Your task to perform on an android device: set an alarm Image 0: 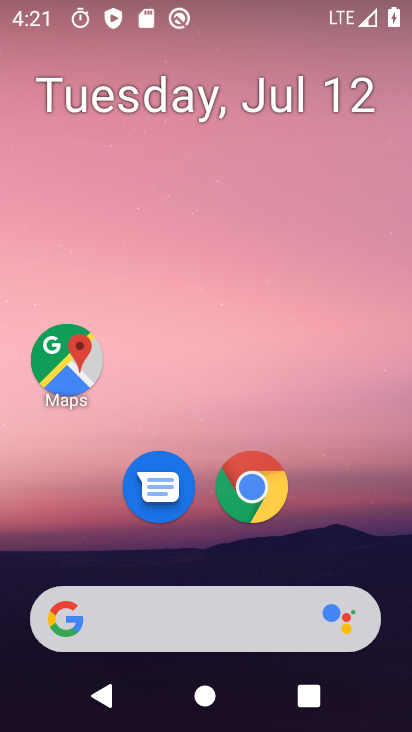
Step 0: drag from (203, 581) to (207, 163)
Your task to perform on an android device: set an alarm Image 1: 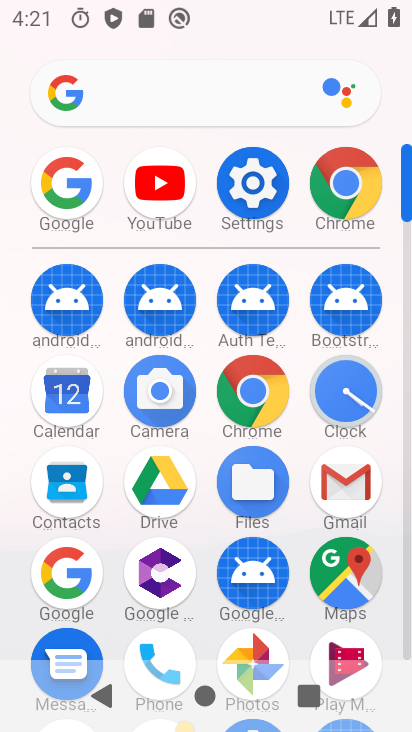
Step 1: click (346, 400)
Your task to perform on an android device: set an alarm Image 2: 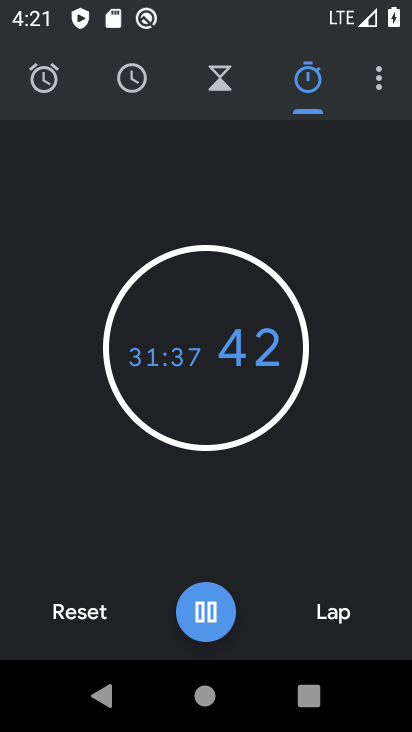
Step 2: click (45, 87)
Your task to perform on an android device: set an alarm Image 3: 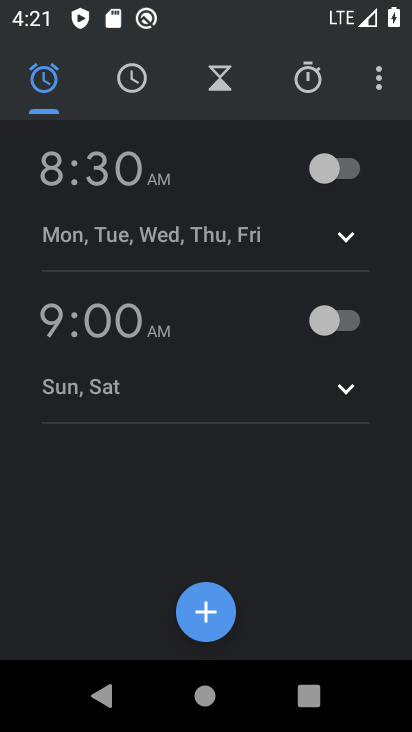
Step 3: click (215, 616)
Your task to perform on an android device: set an alarm Image 4: 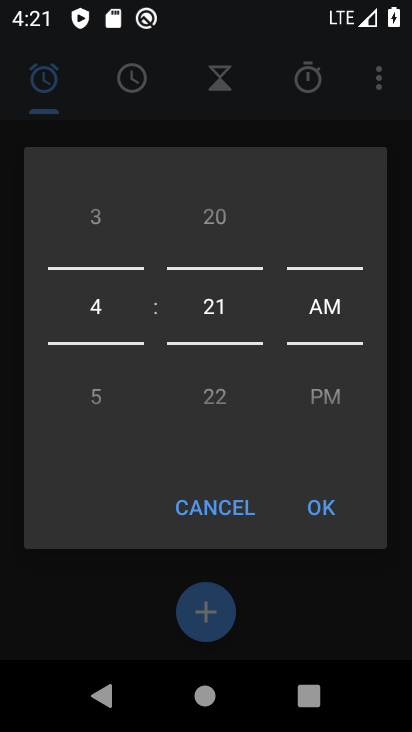
Step 4: click (329, 507)
Your task to perform on an android device: set an alarm Image 5: 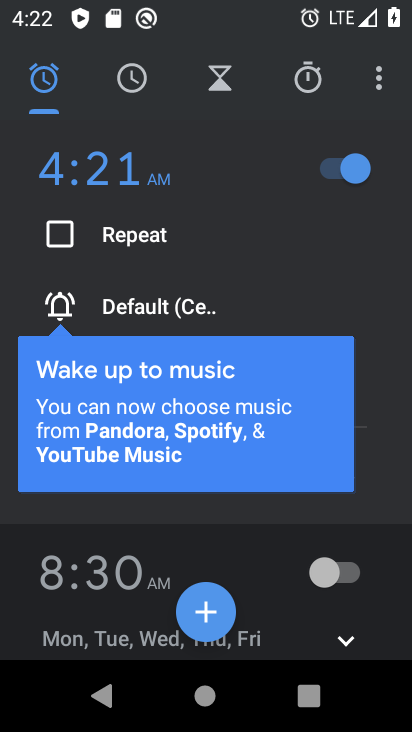
Step 5: task complete